Your task to perform on an android device: Search for the new Nike Air Jordan 33 on Nike.com Image 0: 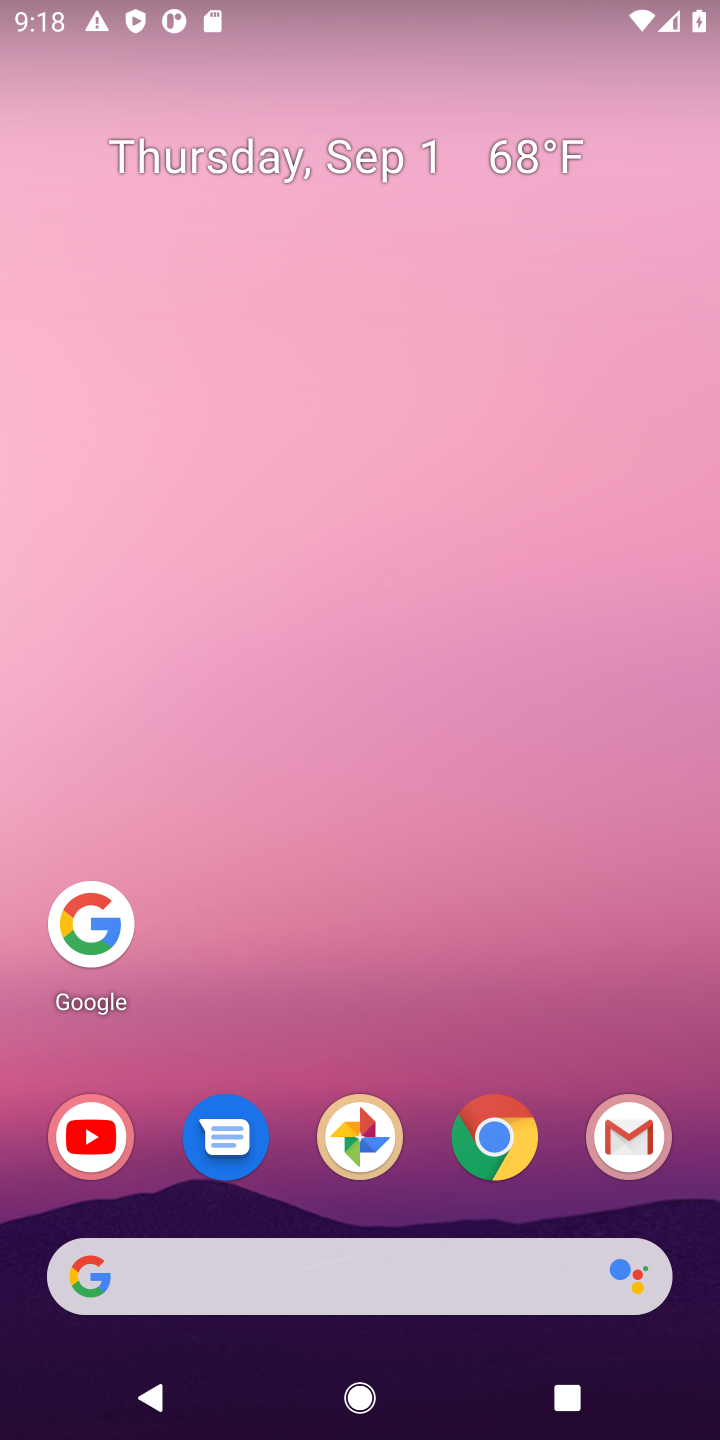
Step 0: click (287, 1284)
Your task to perform on an android device: Search for the new Nike Air Jordan 33 on Nike.com Image 1: 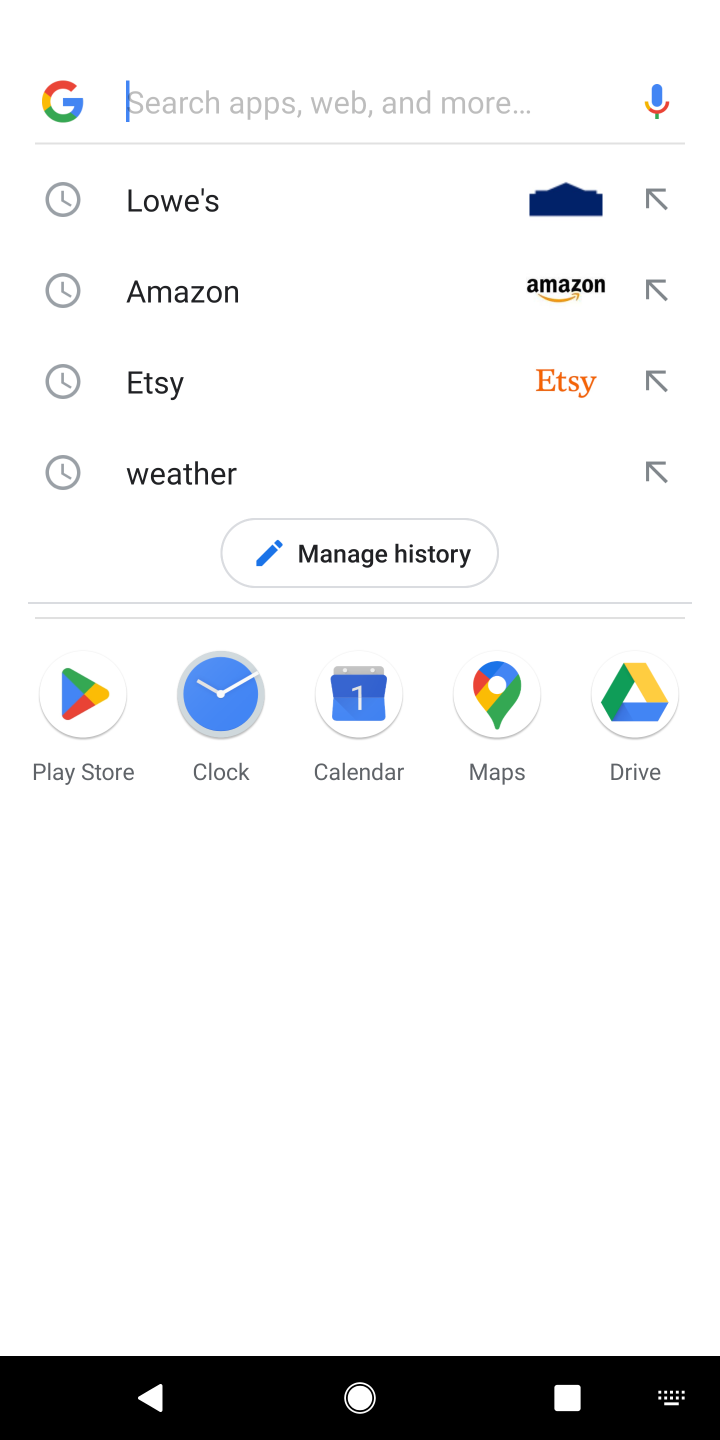
Step 1: type "nike.com"
Your task to perform on an android device: Search for the new Nike Air Jordan 33 on Nike.com Image 2: 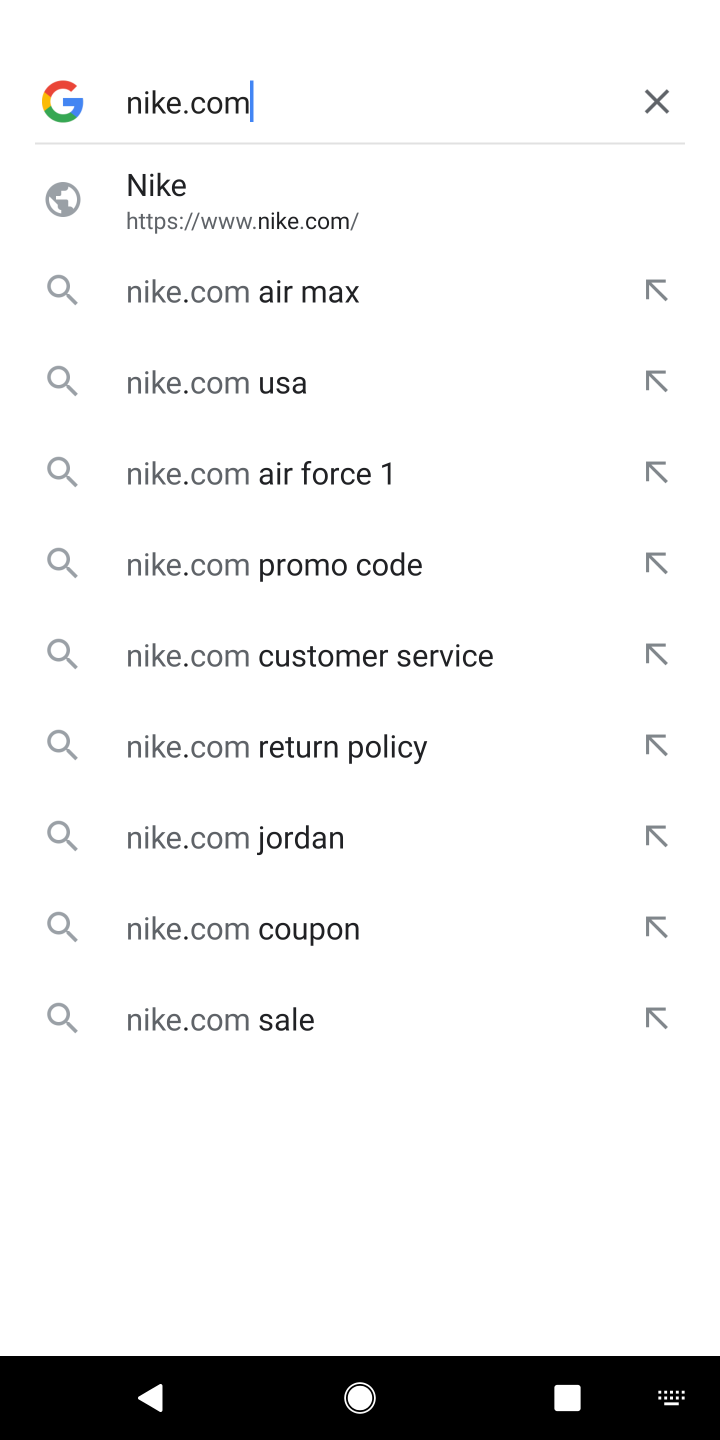
Step 2: click (170, 182)
Your task to perform on an android device: Search for the new Nike Air Jordan 33 on Nike.com Image 3: 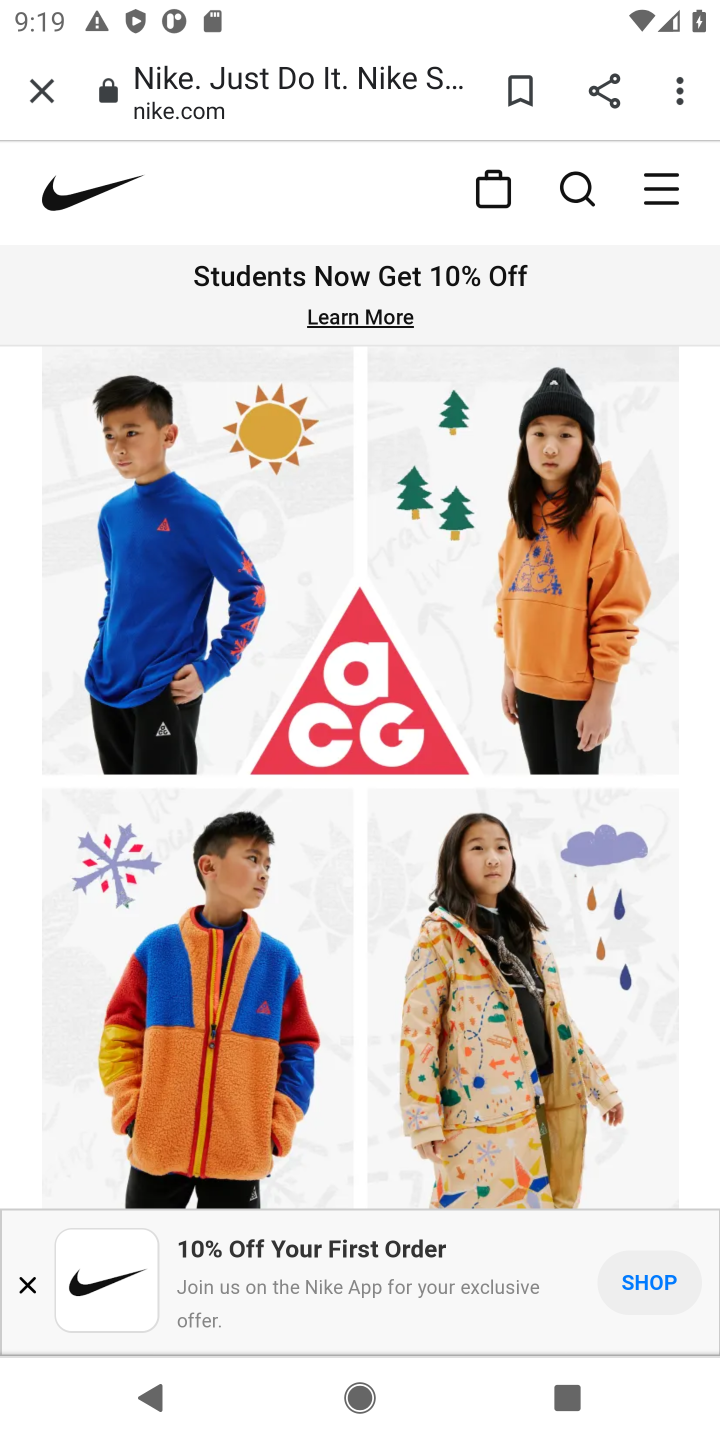
Step 3: click (574, 184)
Your task to perform on an android device: Search for the new Nike Air Jordan 33 on Nike.com Image 4: 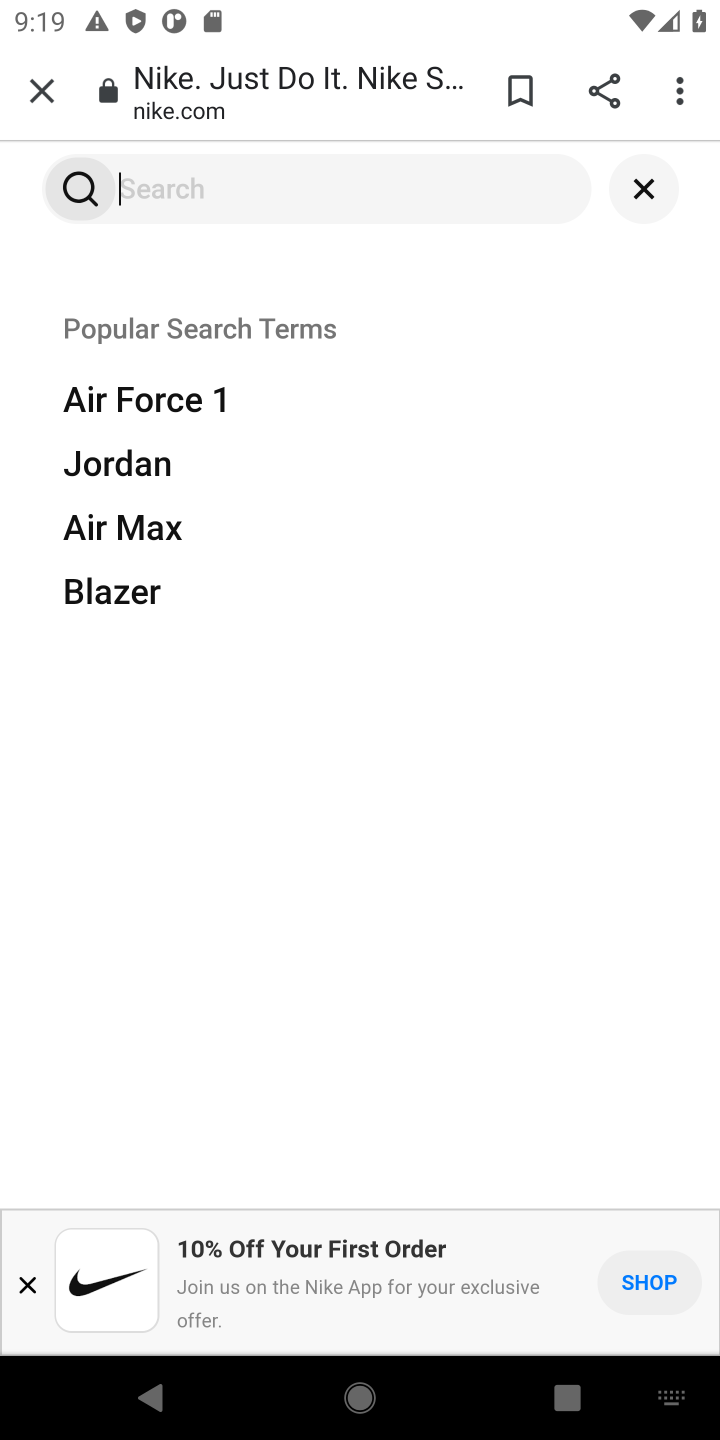
Step 4: type "new Nike Air Jordan 33"
Your task to perform on an android device: Search for the new Nike Air Jordan 33 on Nike.com Image 5: 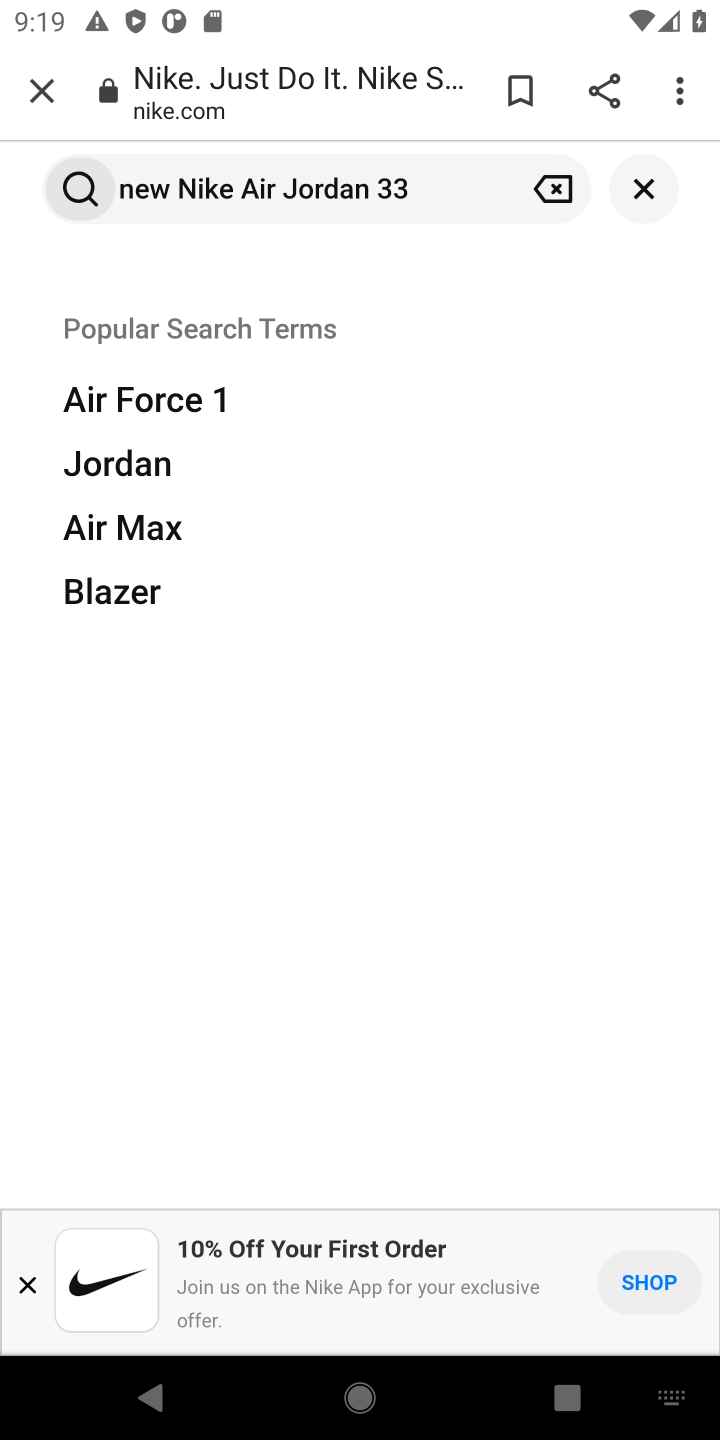
Step 5: click (91, 197)
Your task to perform on an android device: Search for the new Nike Air Jordan 33 on Nike.com Image 6: 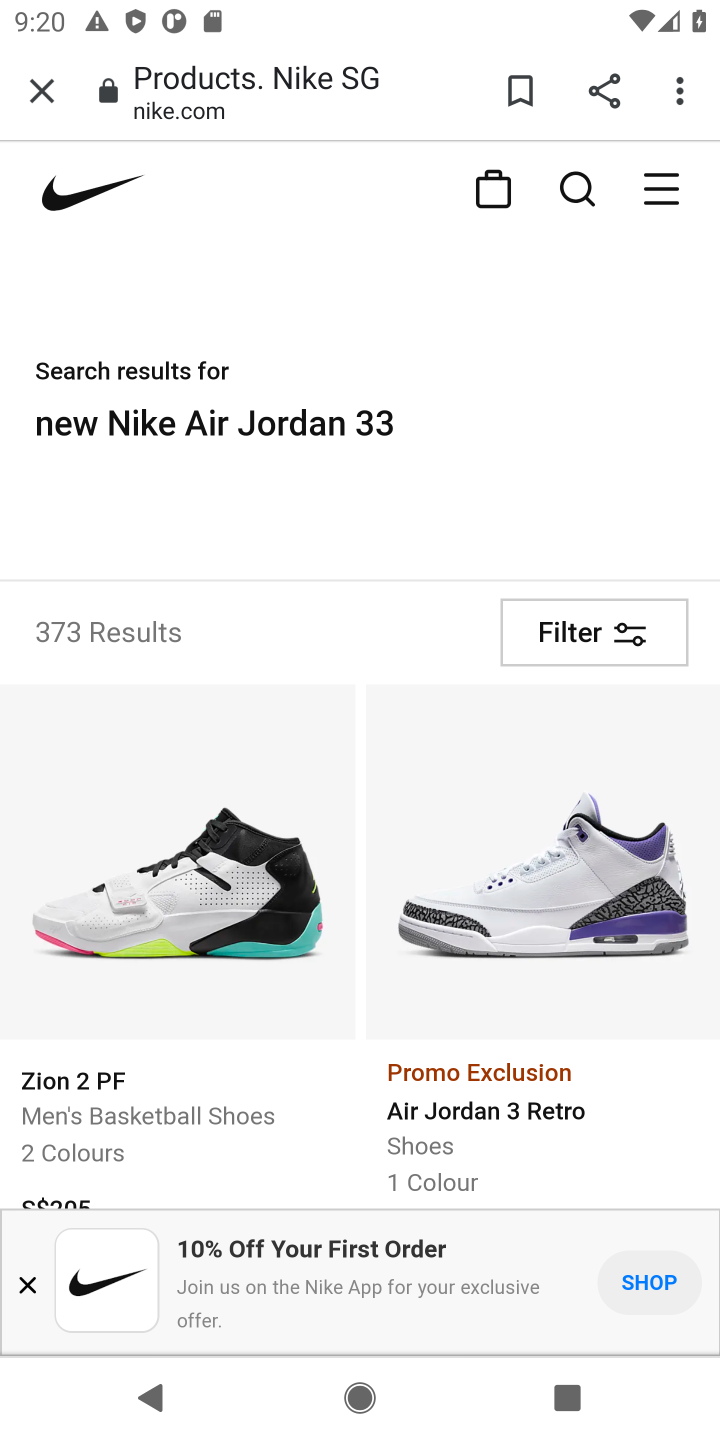
Step 6: task complete